Your task to perform on an android device: Go to accessibility settings Image 0: 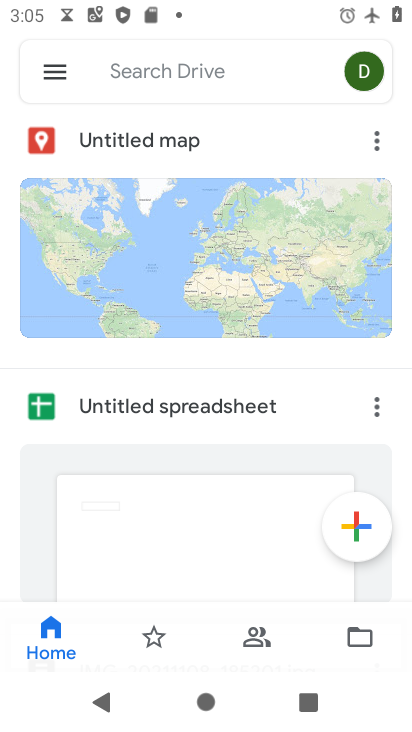
Step 0: press home button
Your task to perform on an android device: Go to accessibility settings Image 1: 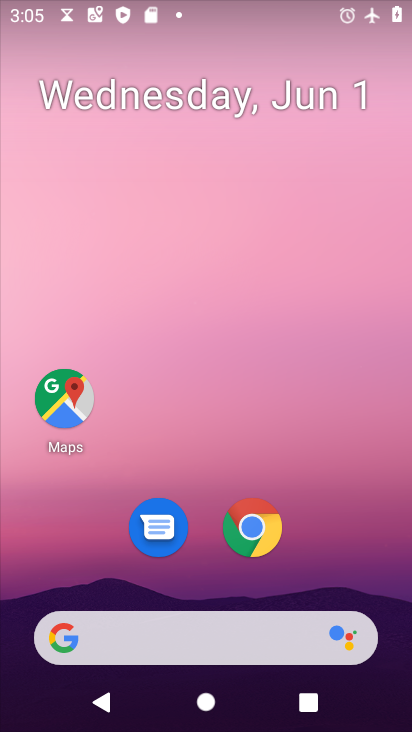
Step 1: drag from (319, 572) to (268, 113)
Your task to perform on an android device: Go to accessibility settings Image 2: 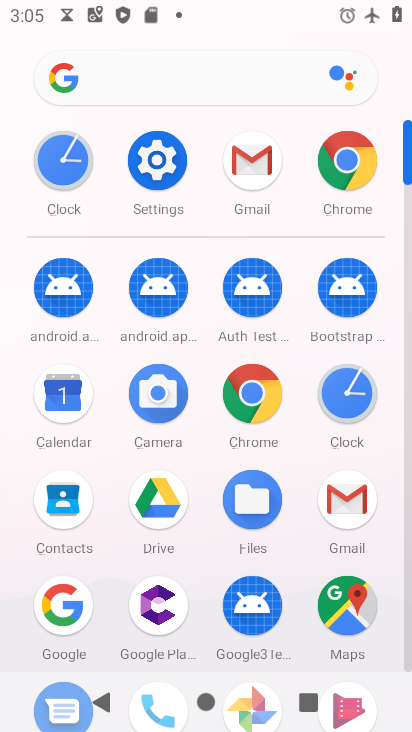
Step 2: click (159, 160)
Your task to perform on an android device: Go to accessibility settings Image 3: 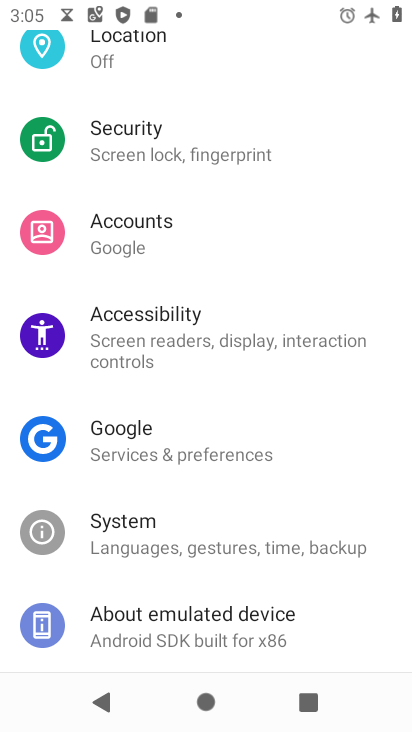
Step 3: click (208, 342)
Your task to perform on an android device: Go to accessibility settings Image 4: 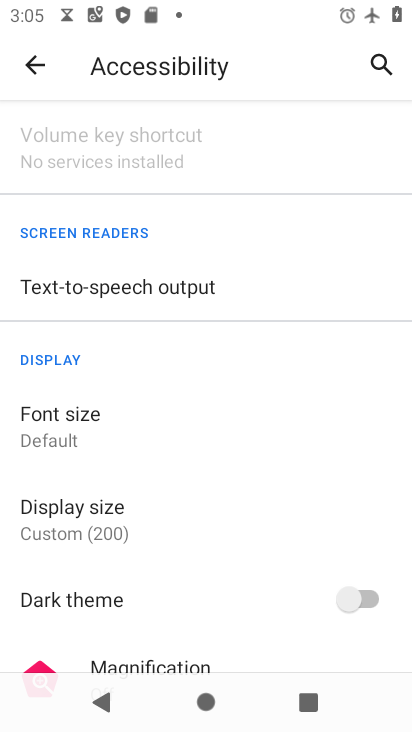
Step 4: task complete